Your task to perform on an android device: toggle translation in the chrome app Image 0: 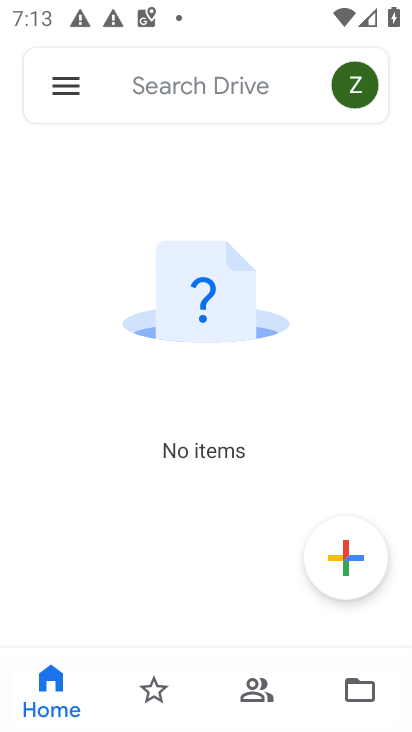
Step 0: press home button
Your task to perform on an android device: toggle translation in the chrome app Image 1: 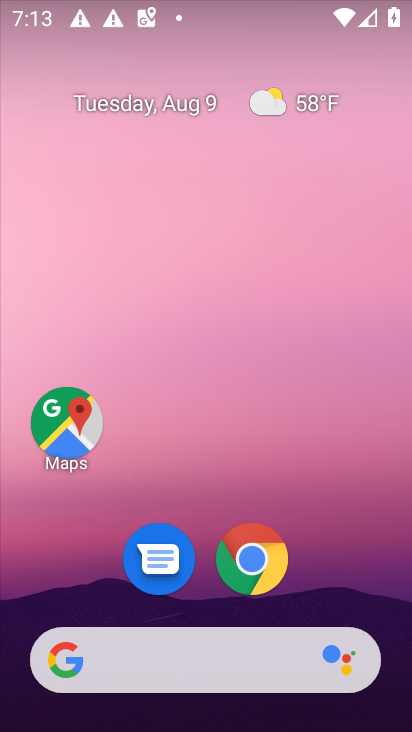
Step 1: click (242, 557)
Your task to perform on an android device: toggle translation in the chrome app Image 2: 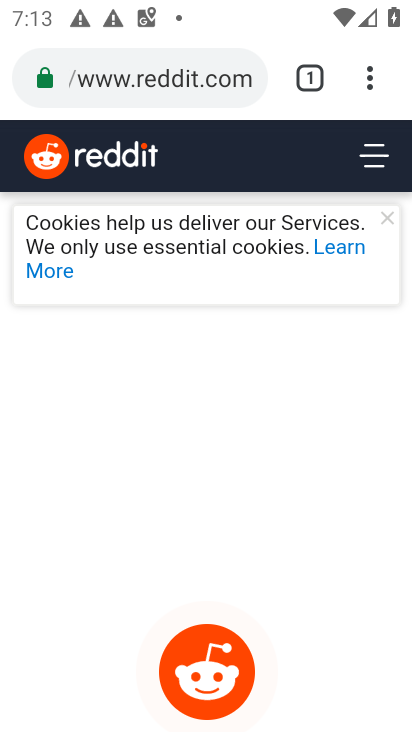
Step 2: click (369, 86)
Your task to perform on an android device: toggle translation in the chrome app Image 3: 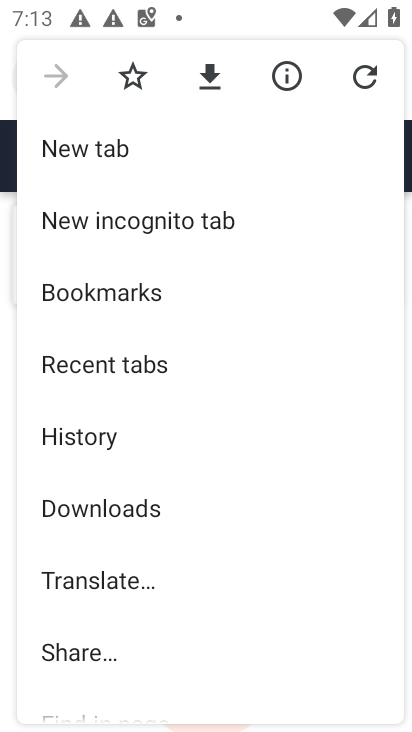
Step 3: drag from (130, 533) to (127, 276)
Your task to perform on an android device: toggle translation in the chrome app Image 4: 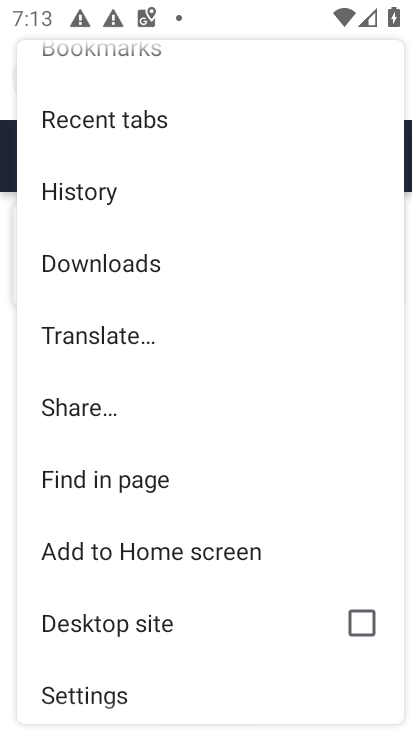
Step 4: drag from (151, 602) to (152, 420)
Your task to perform on an android device: toggle translation in the chrome app Image 5: 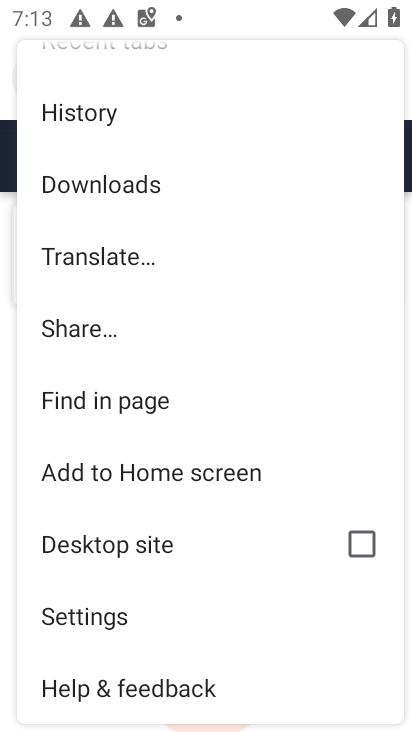
Step 5: click (90, 610)
Your task to perform on an android device: toggle translation in the chrome app Image 6: 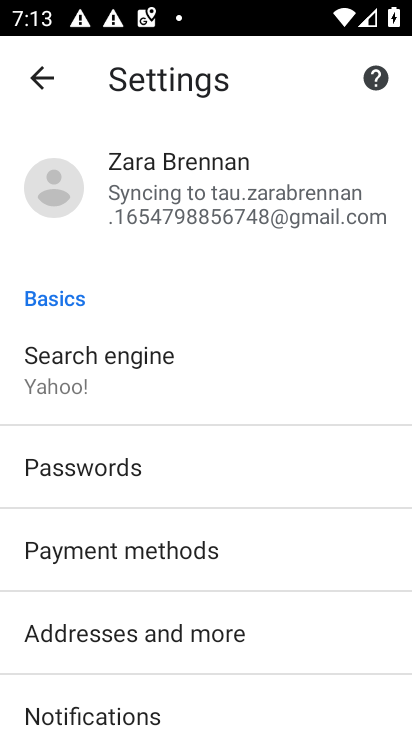
Step 6: click (208, 295)
Your task to perform on an android device: toggle translation in the chrome app Image 7: 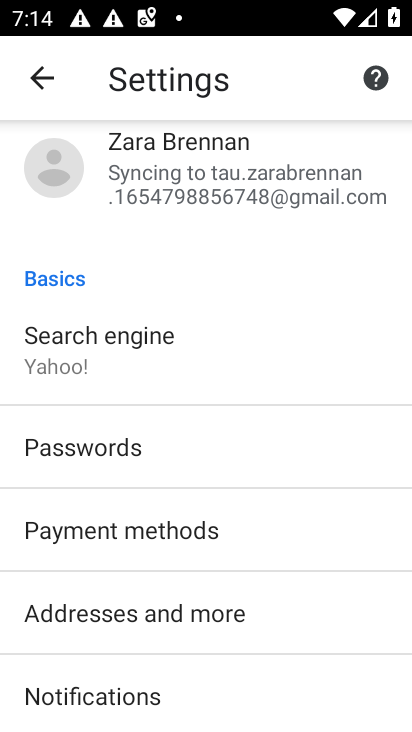
Step 7: drag from (160, 485) to (160, 355)
Your task to perform on an android device: toggle translation in the chrome app Image 8: 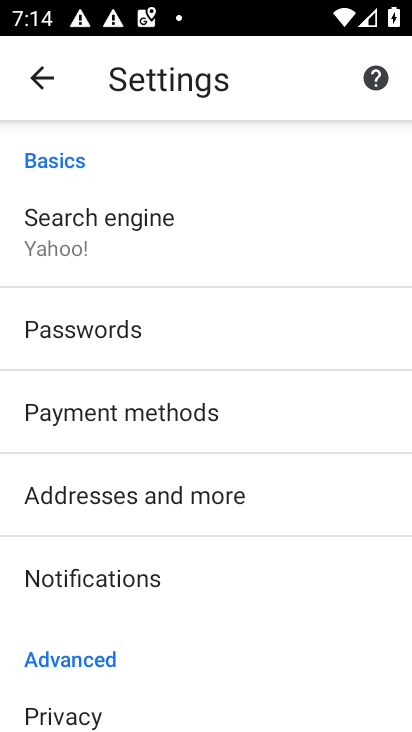
Step 8: drag from (170, 630) to (191, 411)
Your task to perform on an android device: toggle translation in the chrome app Image 9: 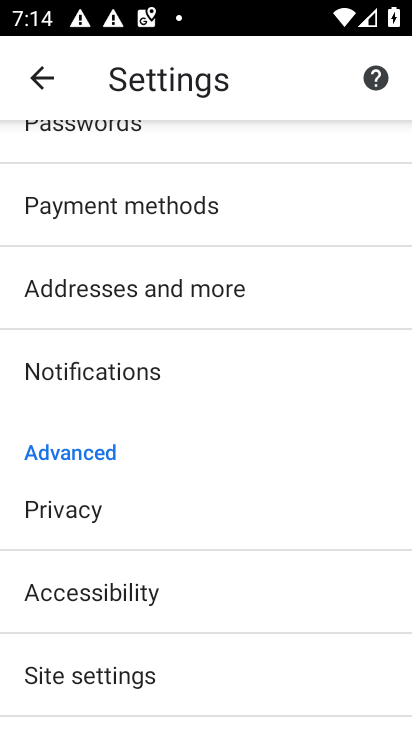
Step 9: drag from (176, 544) to (189, 358)
Your task to perform on an android device: toggle translation in the chrome app Image 10: 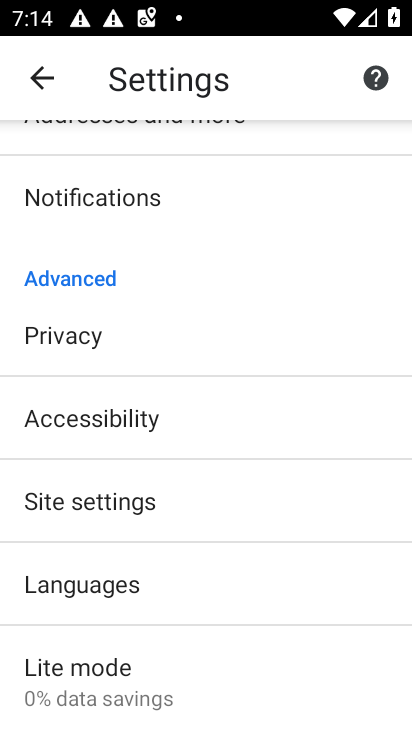
Step 10: click (81, 585)
Your task to perform on an android device: toggle translation in the chrome app Image 11: 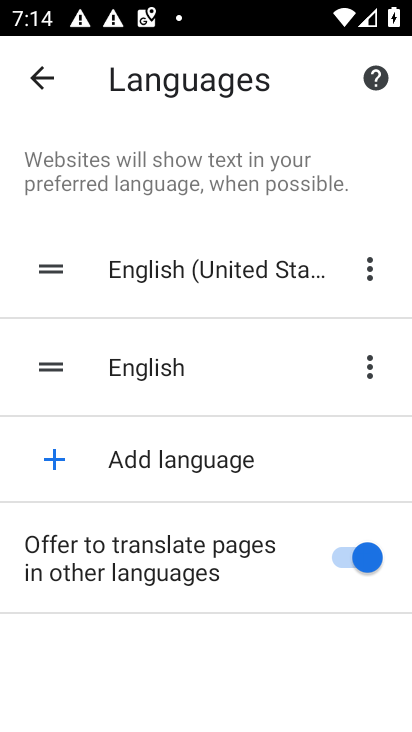
Step 11: click (340, 547)
Your task to perform on an android device: toggle translation in the chrome app Image 12: 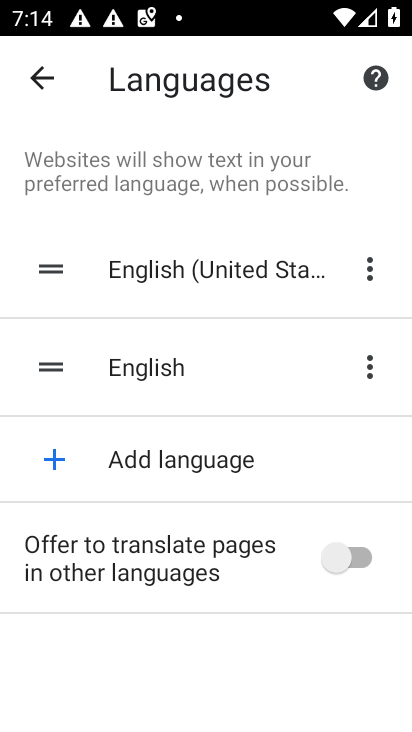
Step 12: task complete